Your task to perform on an android device: refresh tabs in the chrome app Image 0: 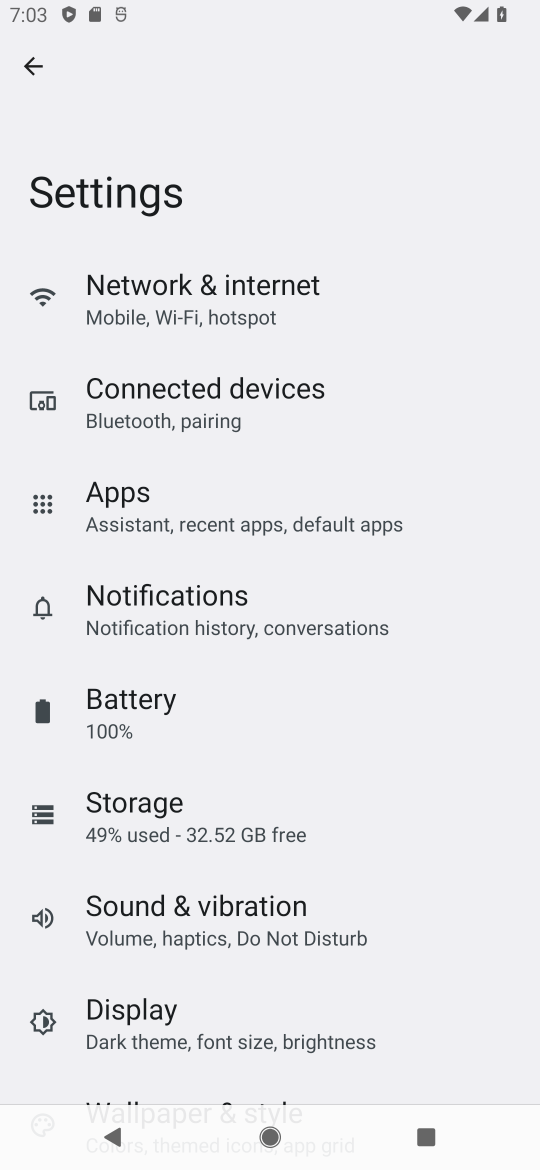
Step 0: press home button
Your task to perform on an android device: refresh tabs in the chrome app Image 1: 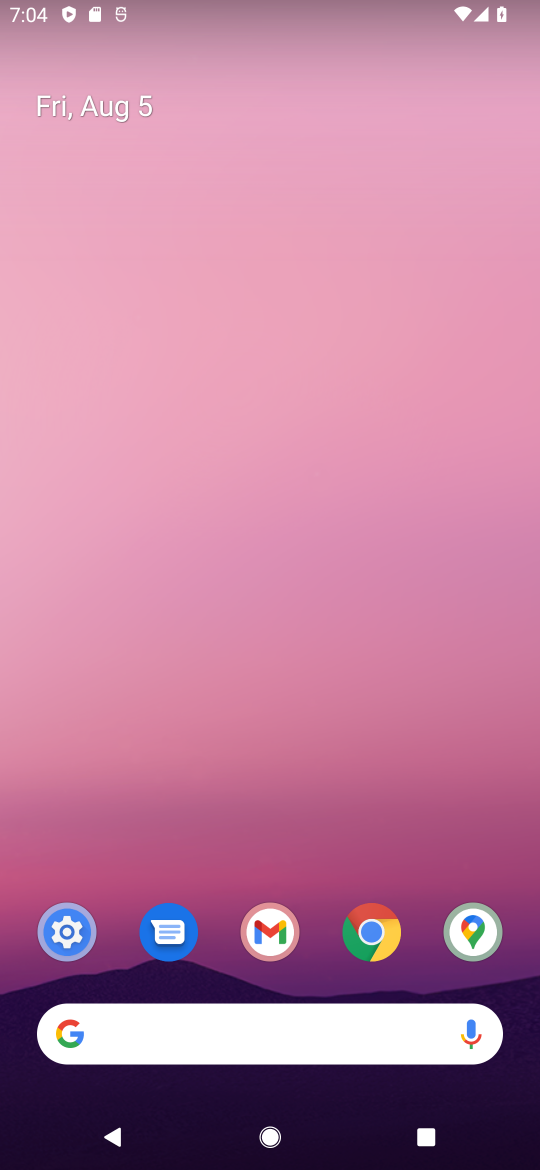
Step 1: drag from (343, 829) to (316, 174)
Your task to perform on an android device: refresh tabs in the chrome app Image 2: 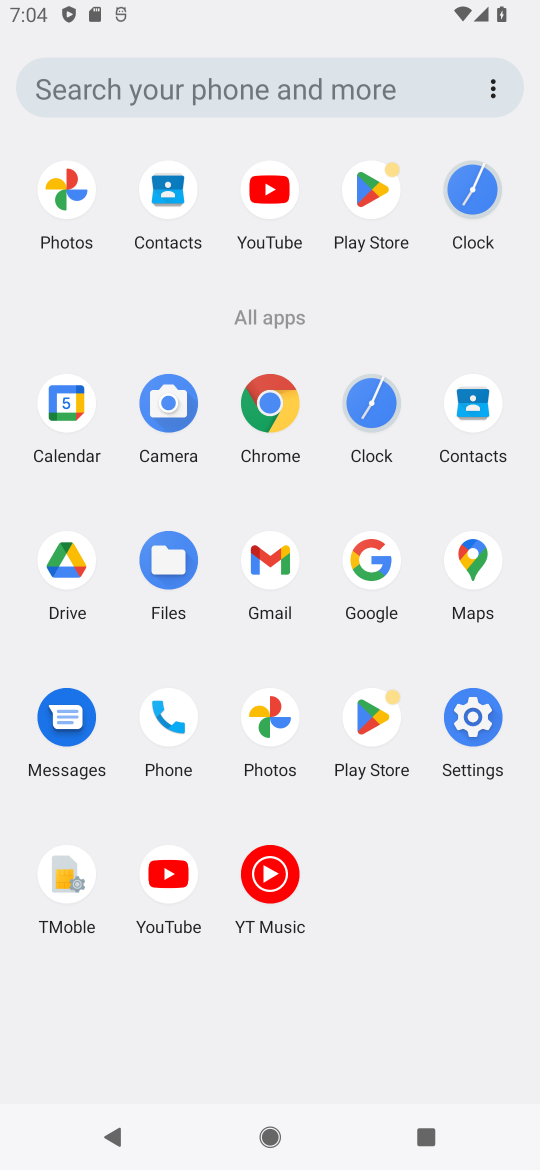
Step 2: click (265, 397)
Your task to perform on an android device: refresh tabs in the chrome app Image 3: 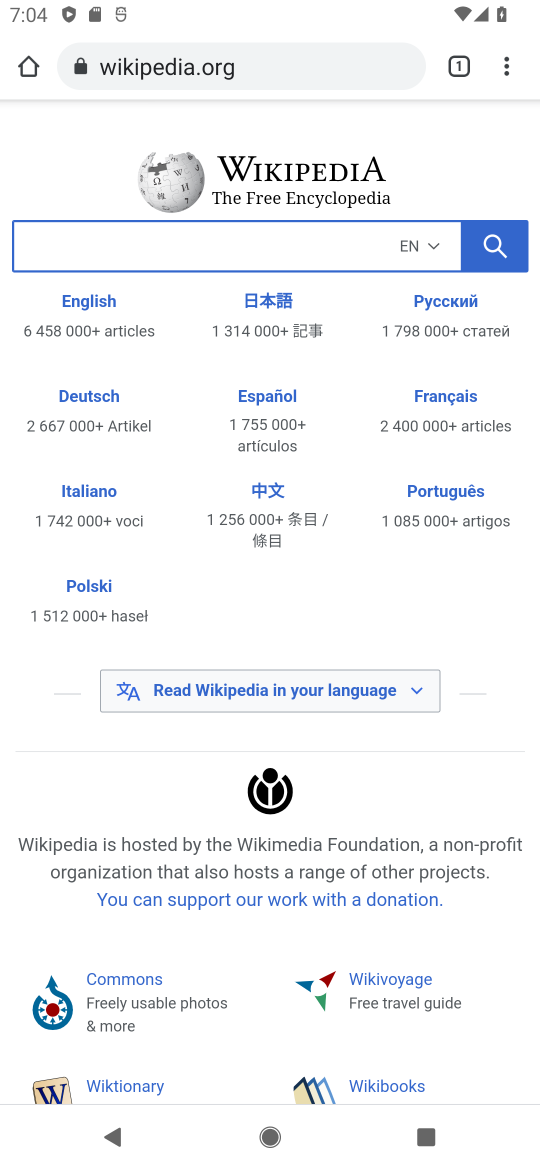
Step 3: click (508, 59)
Your task to perform on an android device: refresh tabs in the chrome app Image 4: 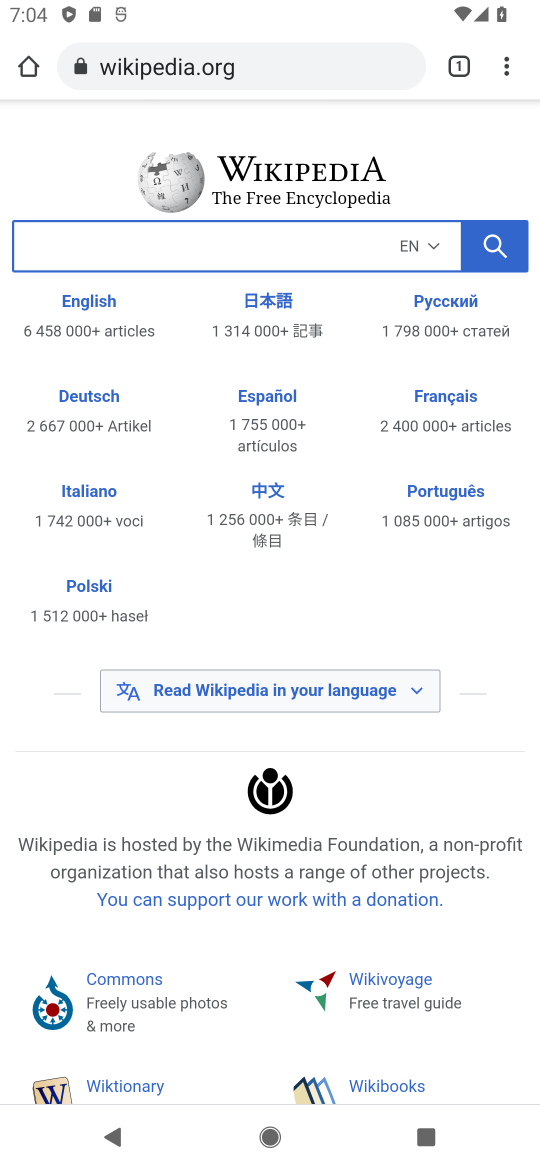
Step 4: task complete